Your task to perform on an android device: What's the weather going to be tomorrow? Image 0: 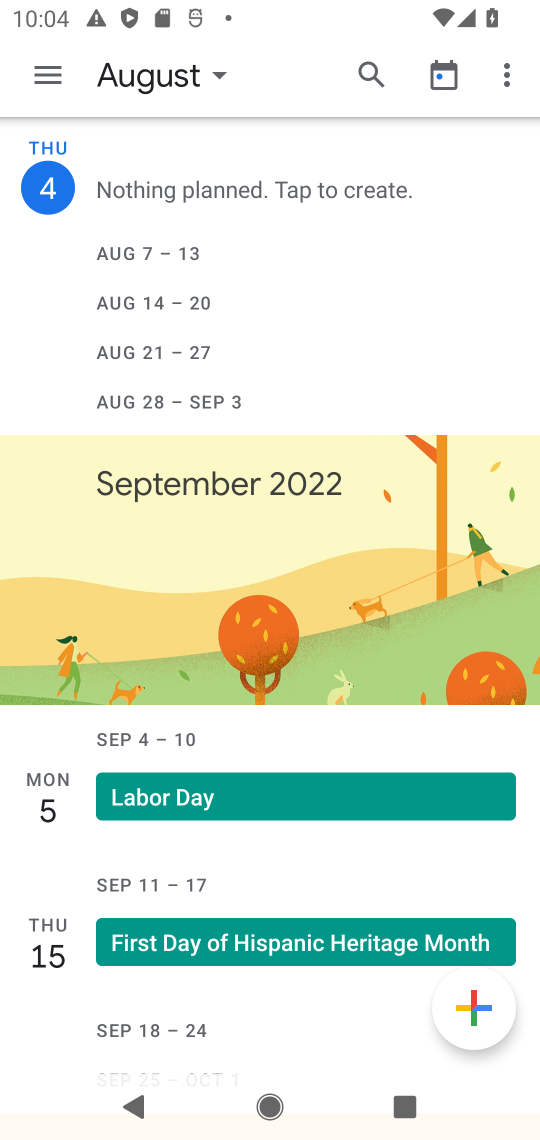
Step 0: press home button
Your task to perform on an android device: What's the weather going to be tomorrow? Image 1: 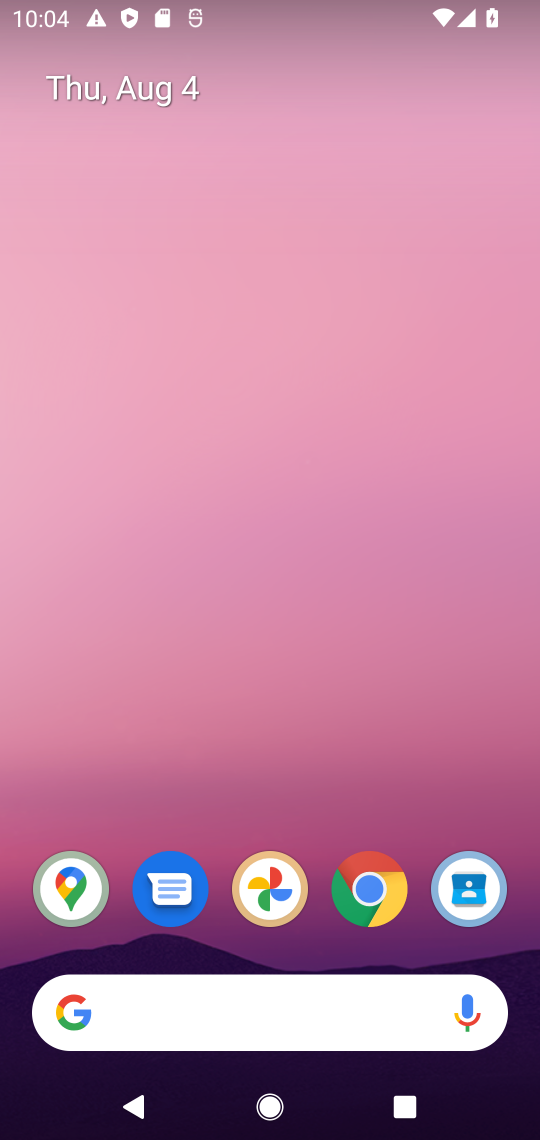
Step 1: click (304, 1004)
Your task to perform on an android device: What's the weather going to be tomorrow? Image 2: 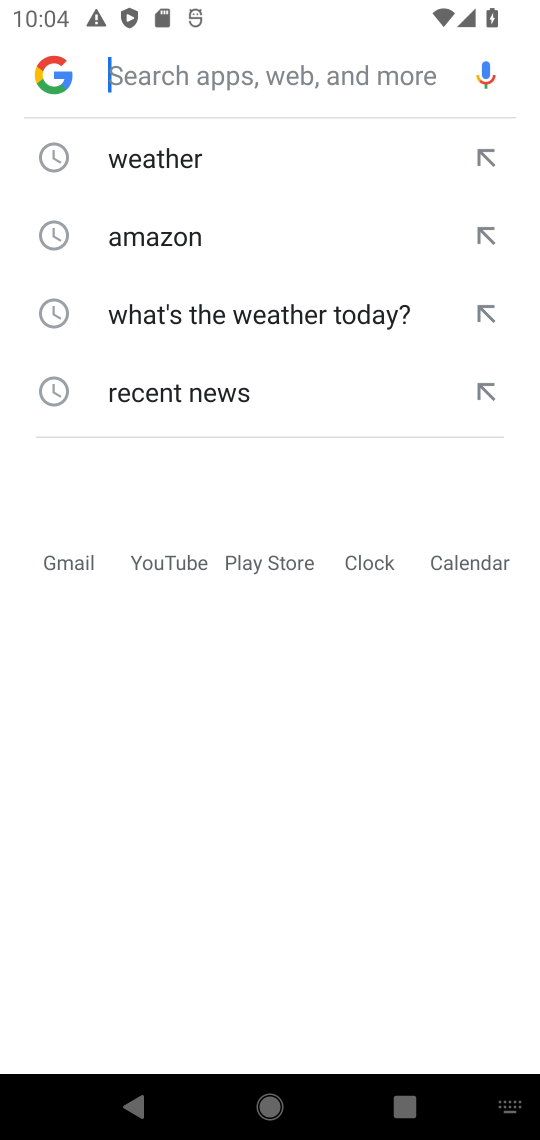
Step 2: click (173, 168)
Your task to perform on an android device: What's the weather going to be tomorrow? Image 3: 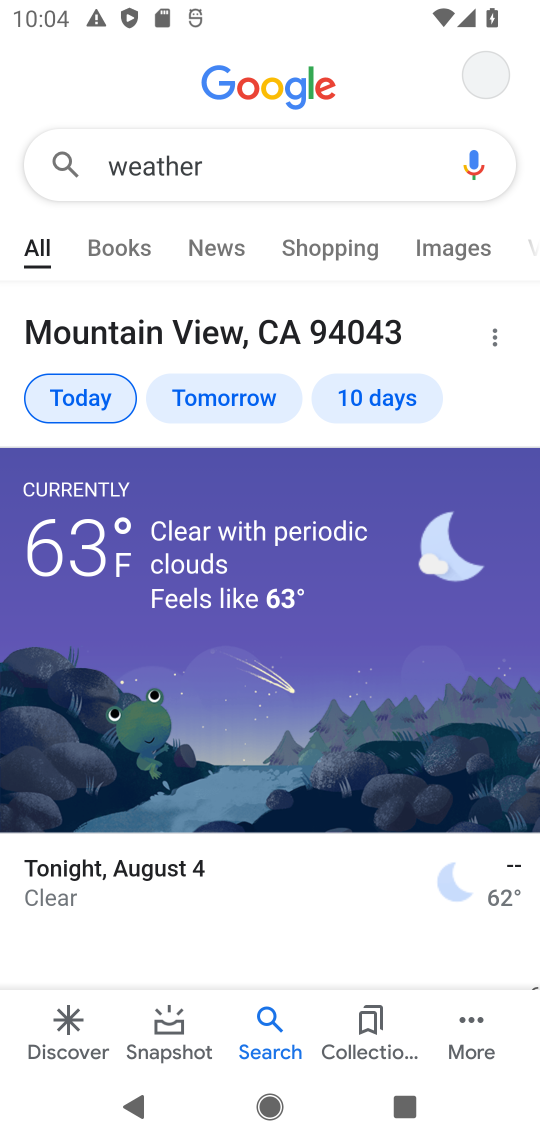
Step 3: click (231, 397)
Your task to perform on an android device: What's the weather going to be tomorrow? Image 4: 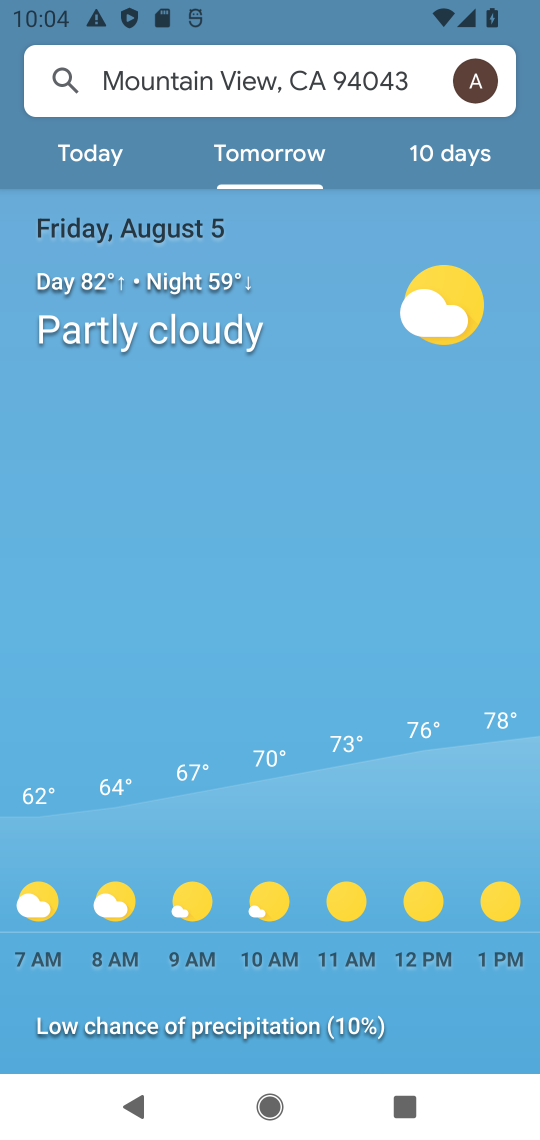
Step 4: task complete